Your task to perform on an android device: Show me recent news Image 0: 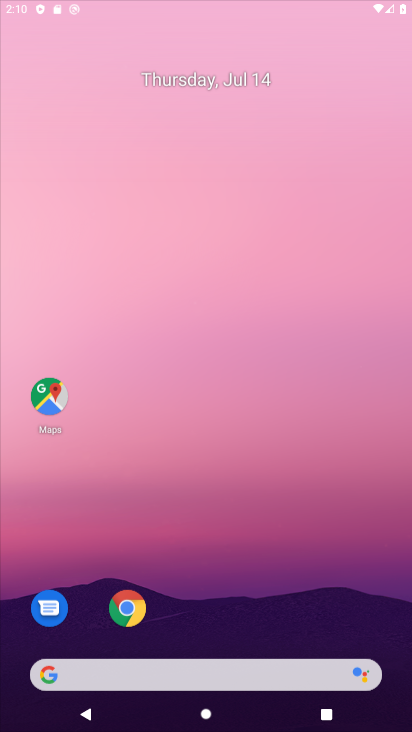
Step 0: click (292, 288)
Your task to perform on an android device: Show me recent news Image 1: 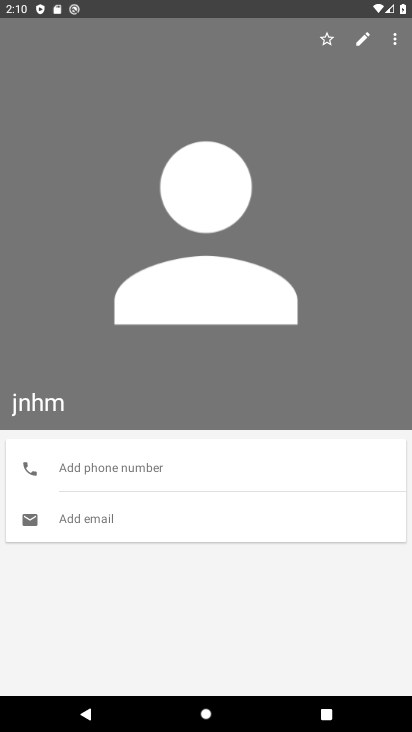
Step 1: press home button
Your task to perform on an android device: Show me recent news Image 2: 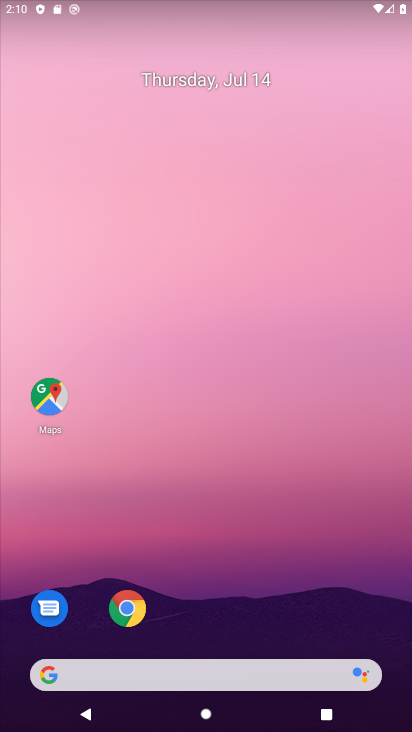
Step 2: drag from (201, 623) to (200, 117)
Your task to perform on an android device: Show me recent news Image 3: 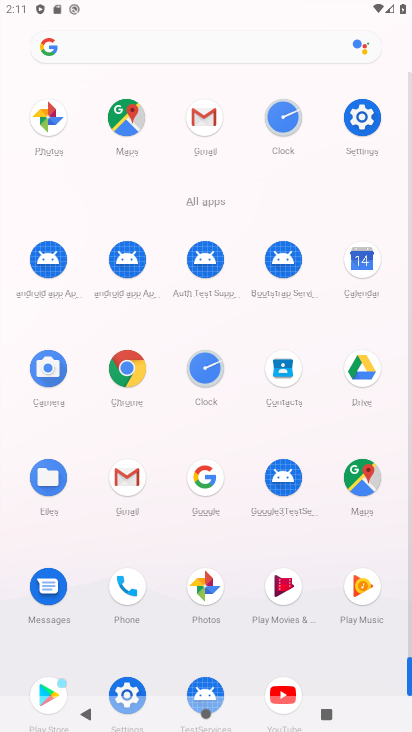
Step 3: click (131, 44)
Your task to perform on an android device: Show me recent news Image 4: 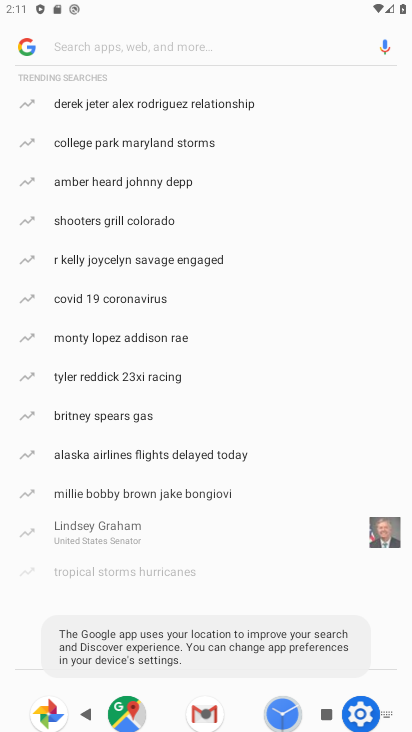
Step 4: type "recent news"
Your task to perform on an android device: Show me recent news Image 5: 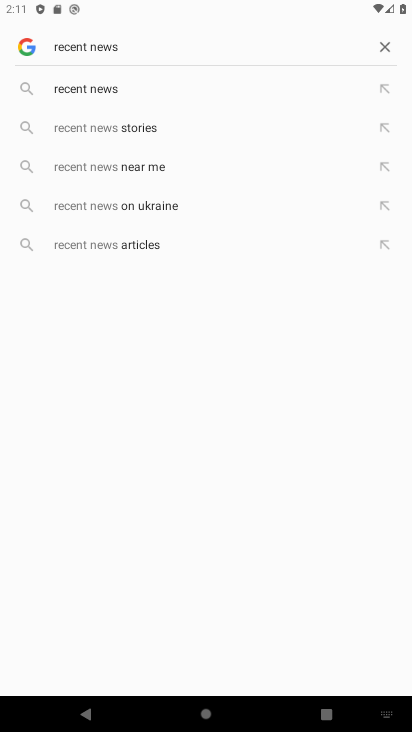
Step 5: click (112, 87)
Your task to perform on an android device: Show me recent news Image 6: 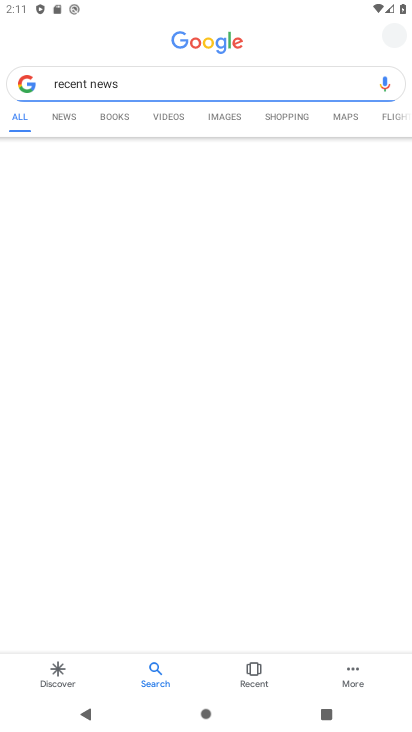
Step 6: task complete